Your task to perform on an android device: Search for sushi restaurants on Maps Image 0: 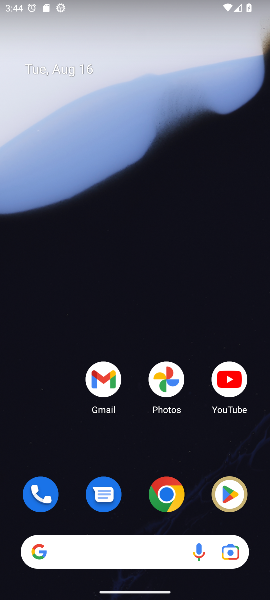
Step 0: drag from (140, 521) to (124, 92)
Your task to perform on an android device: Search for sushi restaurants on Maps Image 1: 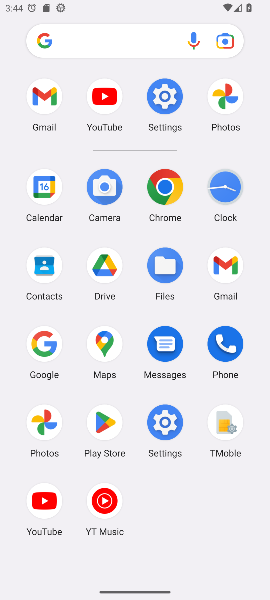
Step 1: click (105, 357)
Your task to perform on an android device: Search for sushi restaurants on Maps Image 2: 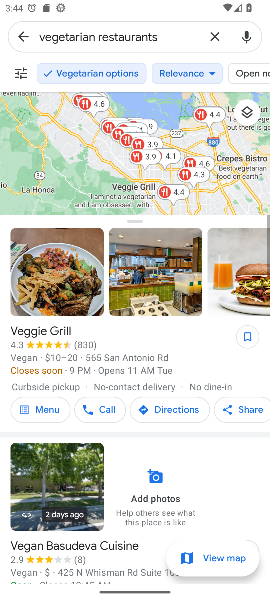
Step 2: click (19, 34)
Your task to perform on an android device: Search for sushi restaurants on Maps Image 3: 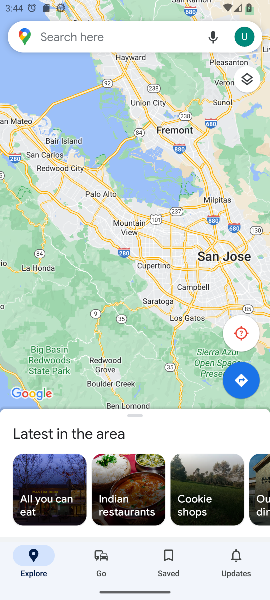
Step 3: click (82, 45)
Your task to perform on an android device: Search for sushi restaurants on Maps Image 4: 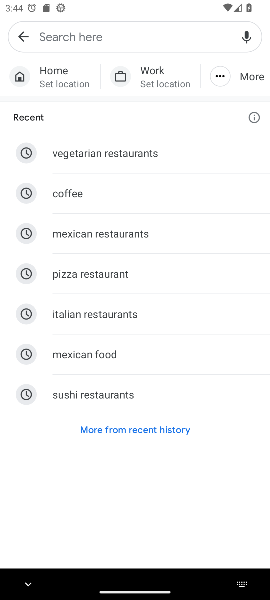
Step 4: click (91, 385)
Your task to perform on an android device: Search for sushi restaurants on Maps Image 5: 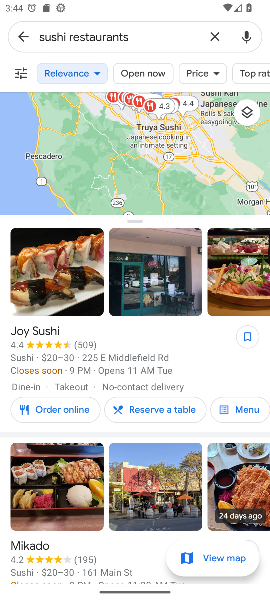
Step 5: task complete